Your task to perform on an android device: toggle sleep mode Image 0: 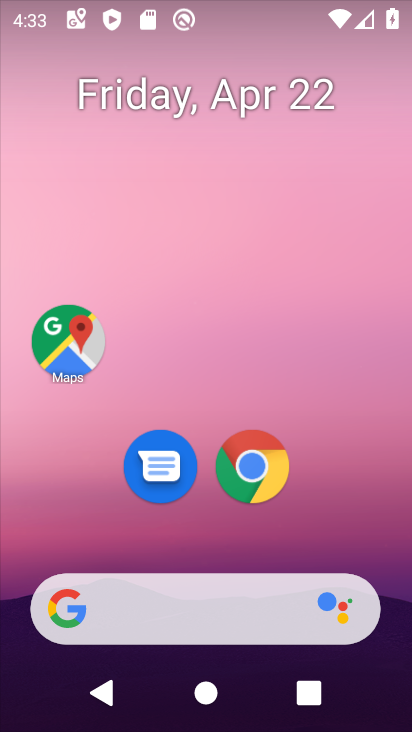
Step 0: drag from (398, 538) to (288, 91)
Your task to perform on an android device: toggle sleep mode Image 1: 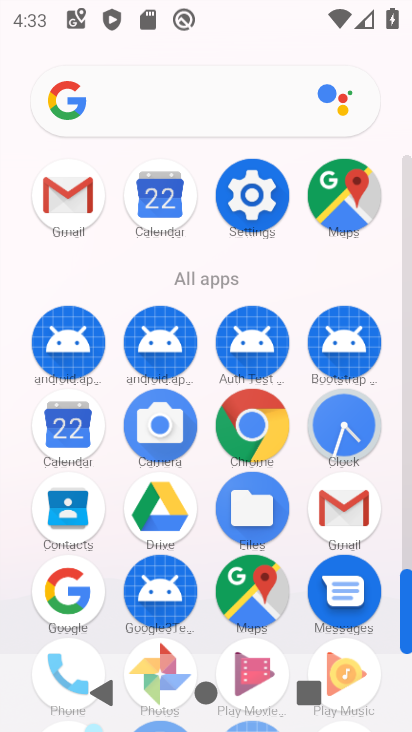
Step 1: click (255, 189)
Your task to perform on an android device: toggle sleep mode Image 2: 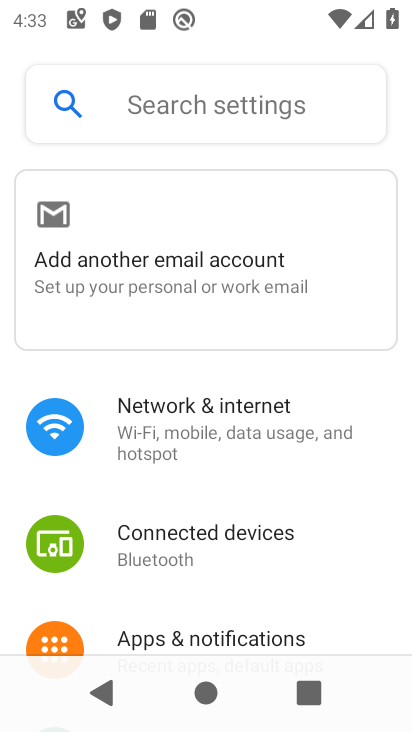
Step 2: drag from (276, 587) to (243, 177)
Your task to perform on an android device: toggle sleep mode Image 3: 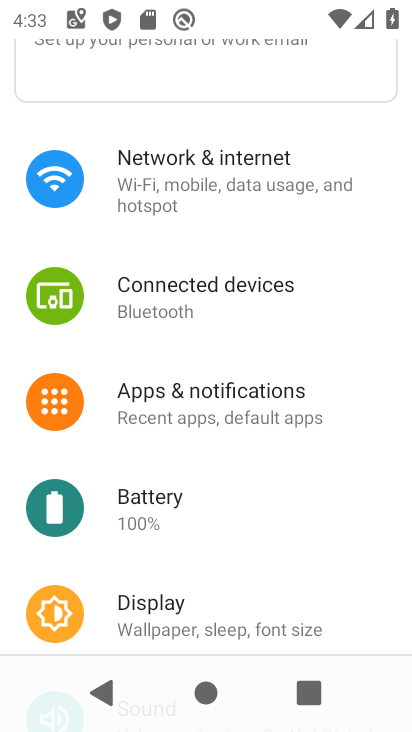
Step 3: drag from (246, 567) to (243, 300)
Your task to perform on an android device: toggle sleep mode Image 4: 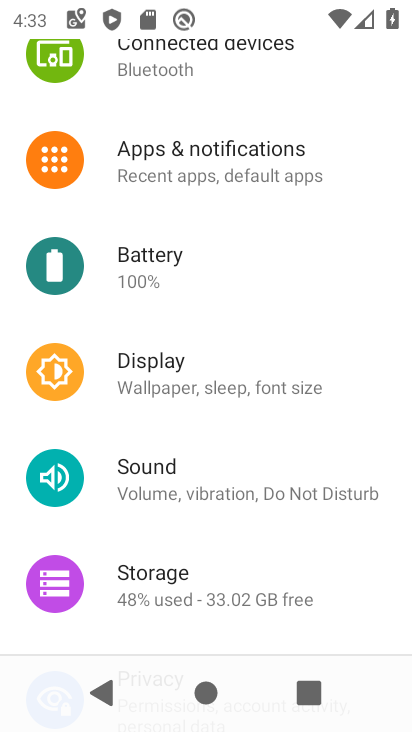
Step 4: click (275, 375)
Your task to perform on an android device: toggle sleep mode Image 5: 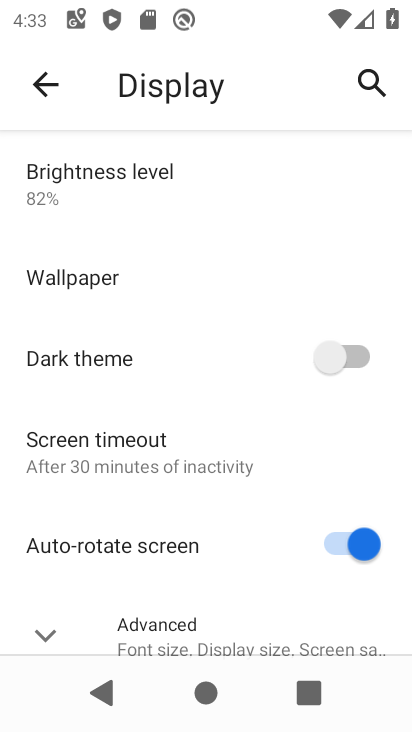
Step 5: drag from (251, 562) to (233, 330)
Your task to perform on an android device: toggle sleep mode Image 6: 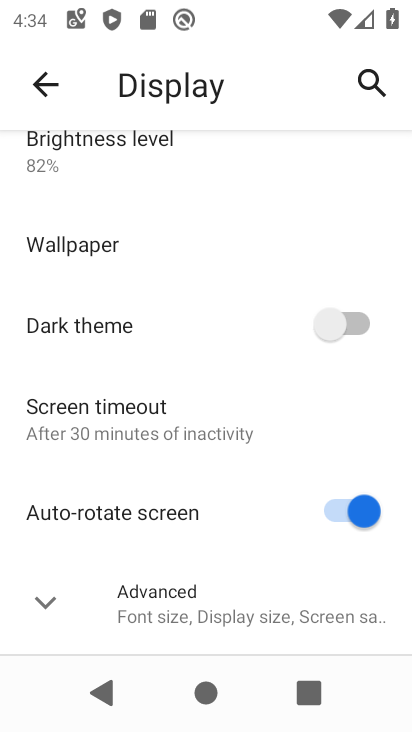
Step 6: click (255, 597)
Your task to perform on an android device: toggle sleep mode Image 7: 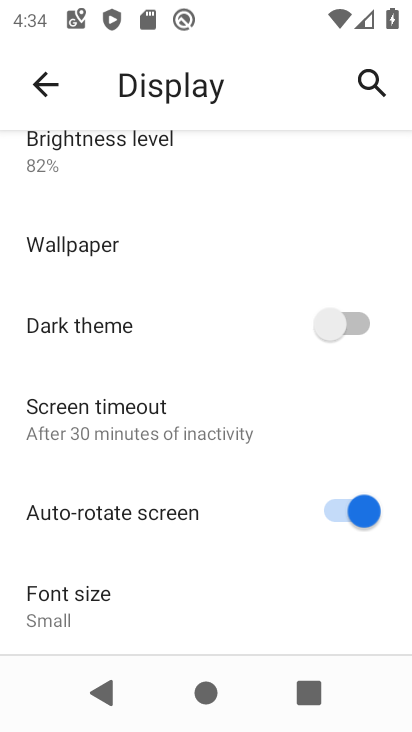
Step 7: task complete